Your task to perform on an android device: change timer sound Image 0: 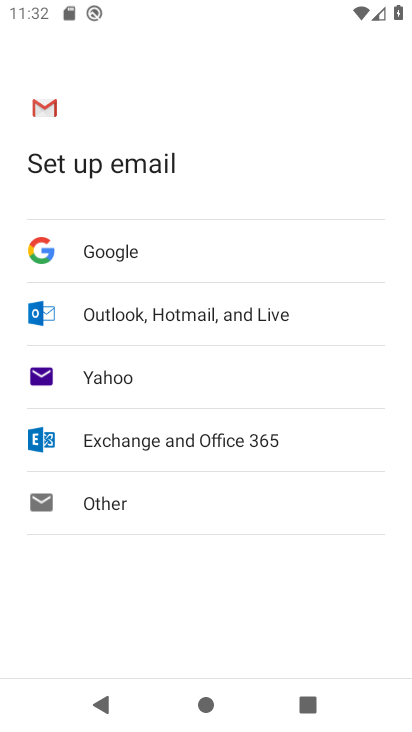
Step 0: press home button
Your task to perform on an android device: change timer sound Image 1: 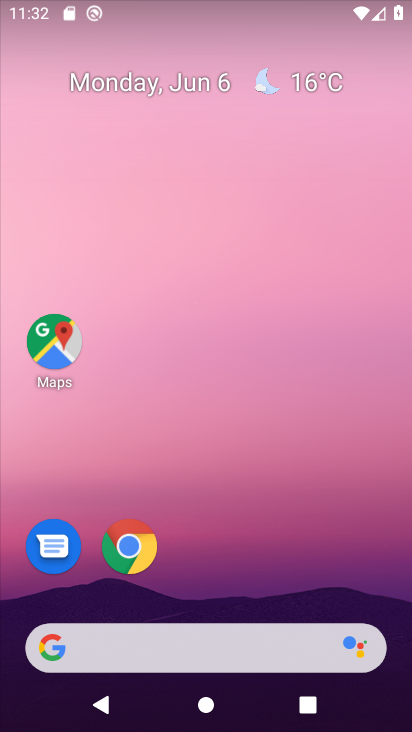
Step 1: drag from (174, 498) to (255, 160)
Your task to perform on an android device: change timer sound Image 2: 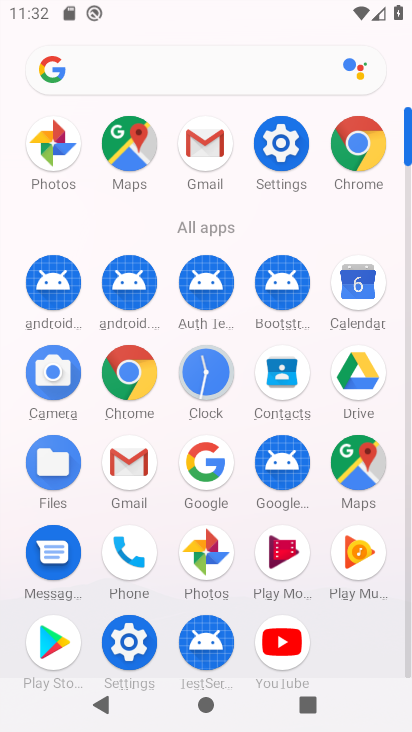
Step 2: click (210, 379)
Your task to perform on an android device: change timer sound Image 3: 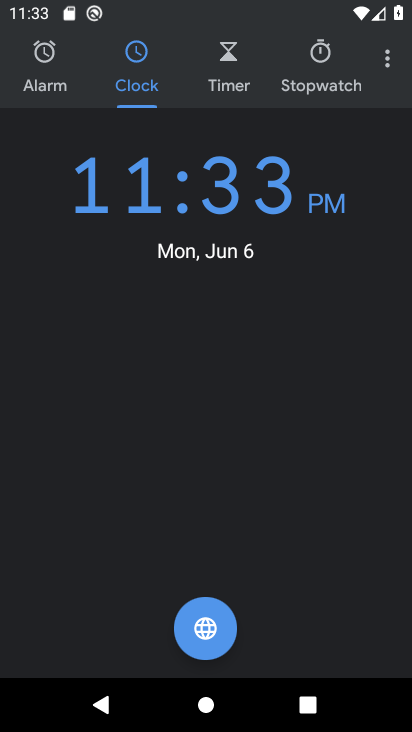
Step 3: click (238, 78)
Your task to perform on an android device: change timer sound Image 4: 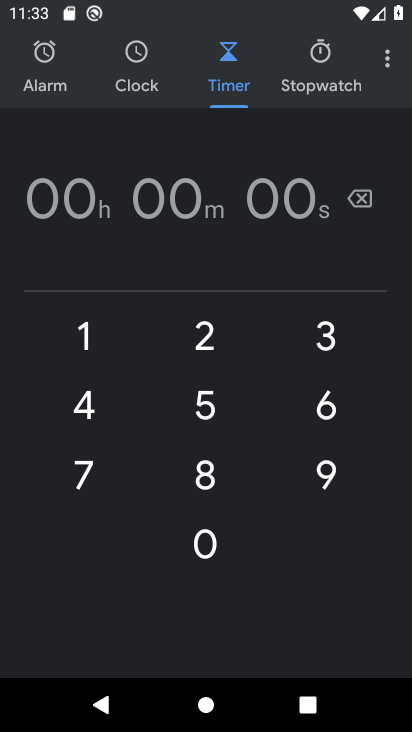
Step 4: click (226, 473)
Your task to perform on an android device: change timer sound Image 5: 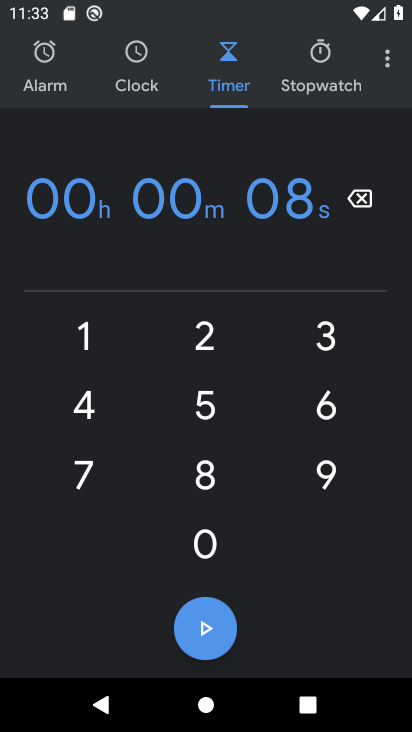
Step 5: click (202, 412)
Your task to perform on an android device: change timer sound Image 6: 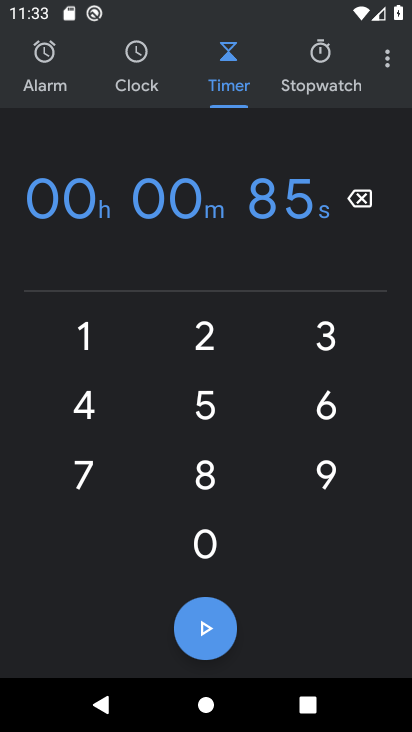
Step 6: click (93, 480)
Your task to perform on an android device: change timer sound Image 7: 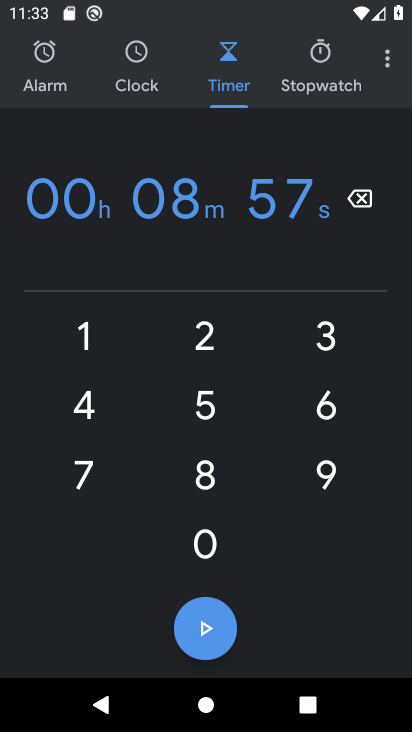
Step 7: click (219, 634)
Your task to perform on an android device: change timer sound Image 8: 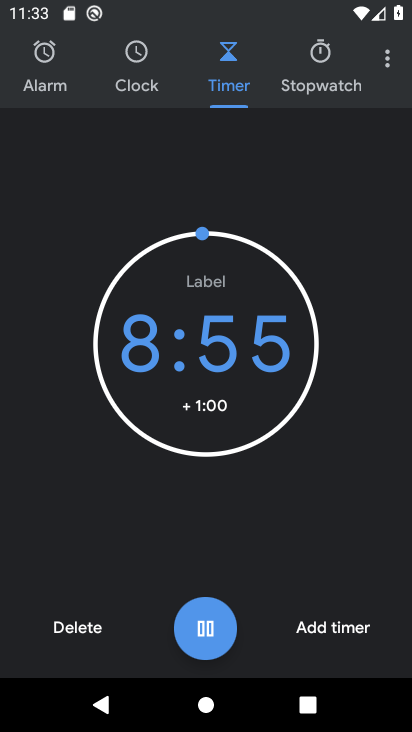
Step 8: task complete